Your task to perform on an android device: Open privacy settings Image 0: 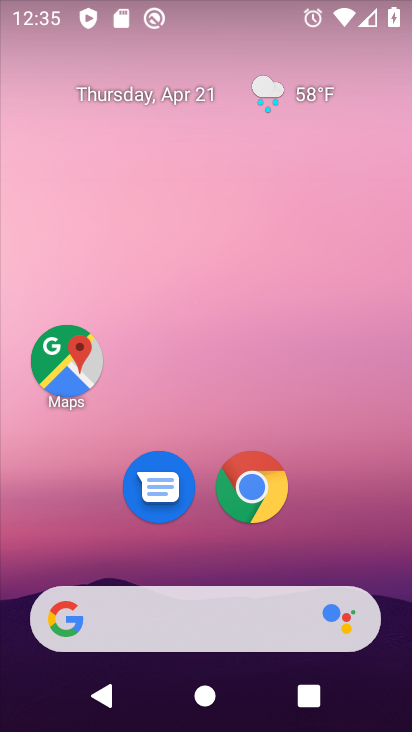
Step 0: drag from (360, 505) to (354, 3)
Your task to perform on an android device: Open privacy settings Image 1: 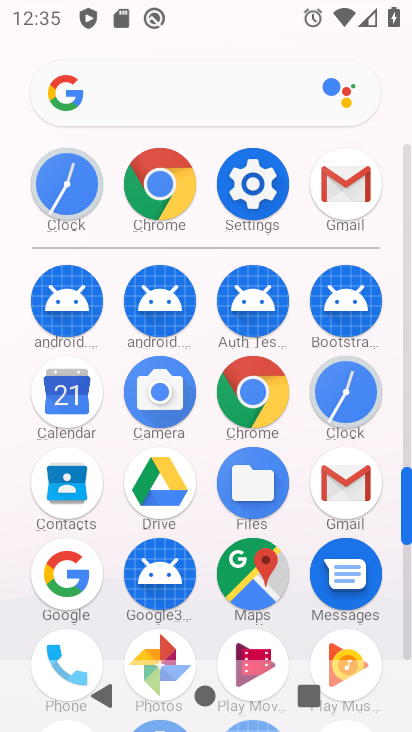
Step 1: click (251, 183)
Your task to perform on an android device: Open privacy settings Image 2: 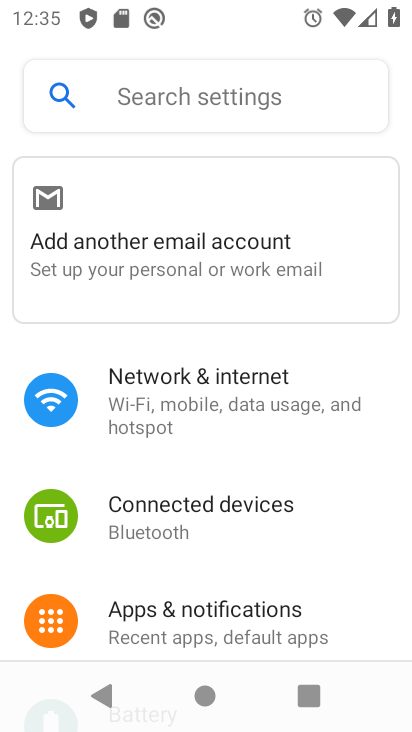
Step 2: drag from (339, 608) to (356, 61)
Your task to perform on an android device: Open privacy settings Image 3: 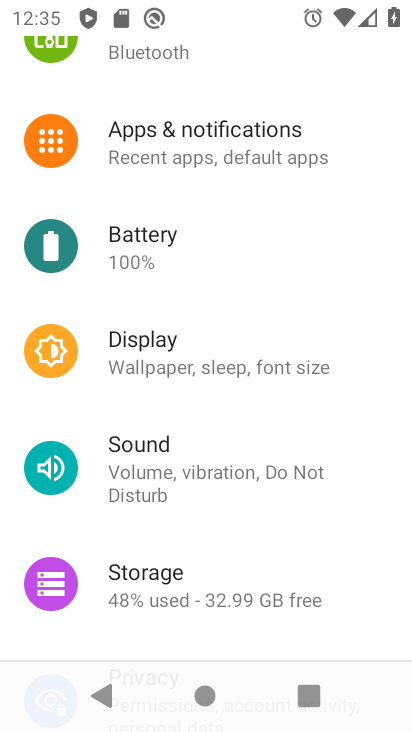
Step 3: drag from (296, 493) to (282, 182)
Your task to perform on an android device: Open privacy settings Image 4: 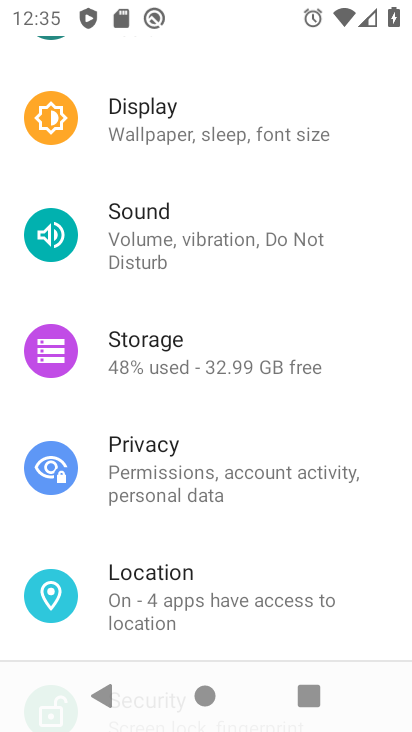
Step 4: click (139, 463)
Your task to perform on an android device: Open privacy settings Image 5: 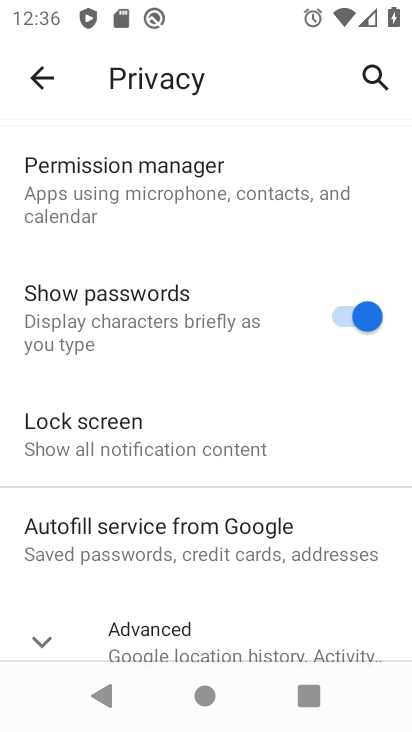
Step 5: task complete